Your task to perform on an android device: Open privacy settings Image 0: 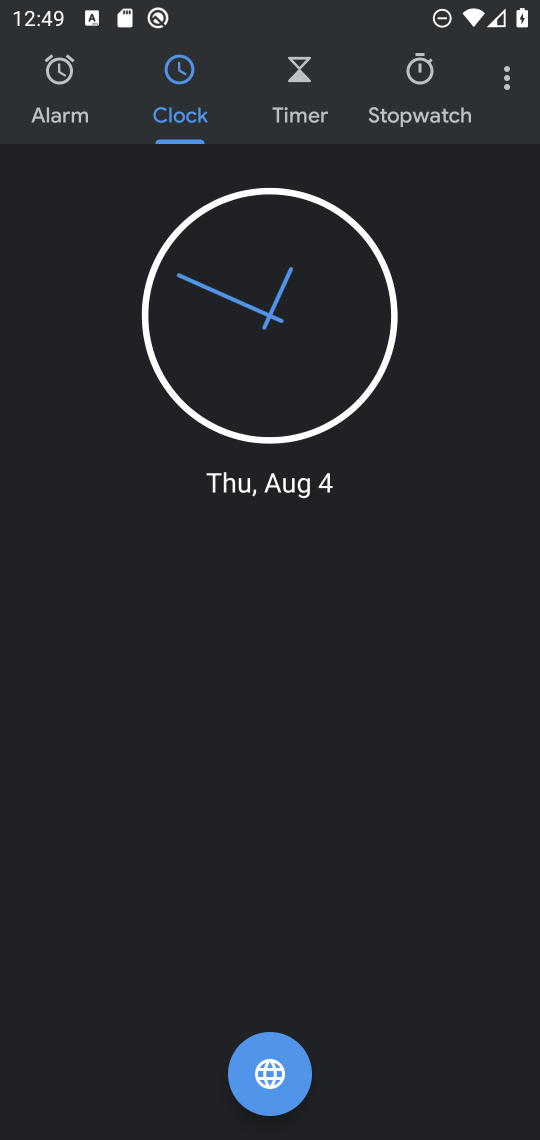
Step 0: press home button
Your task to perform on an android device: Open privacy settings Image 1: 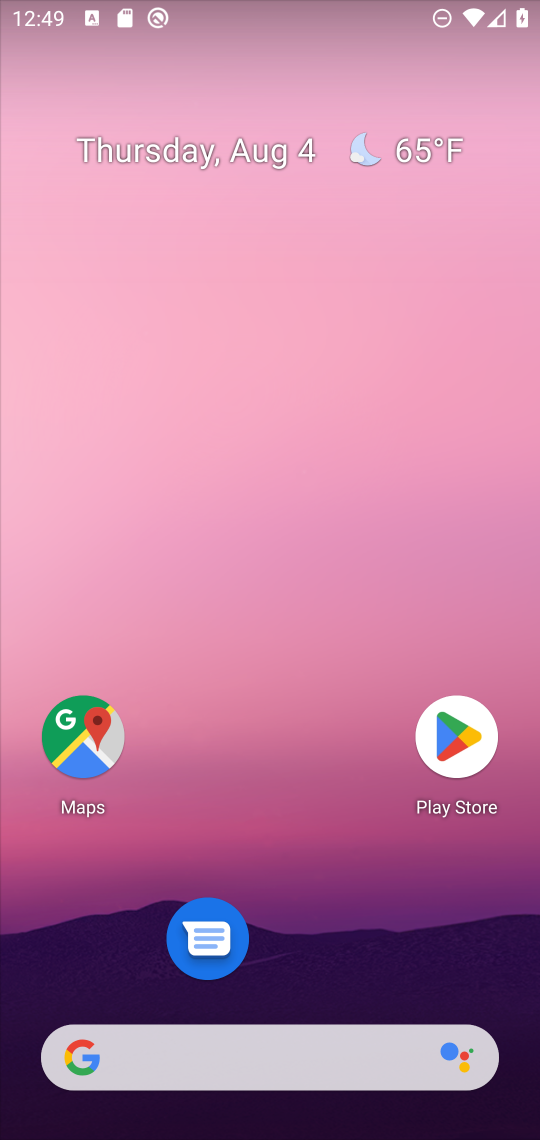
Step 1: drag from (359, 671) to (507, 935)
Your task to perform on an android device: Open privacy settings Image 2: 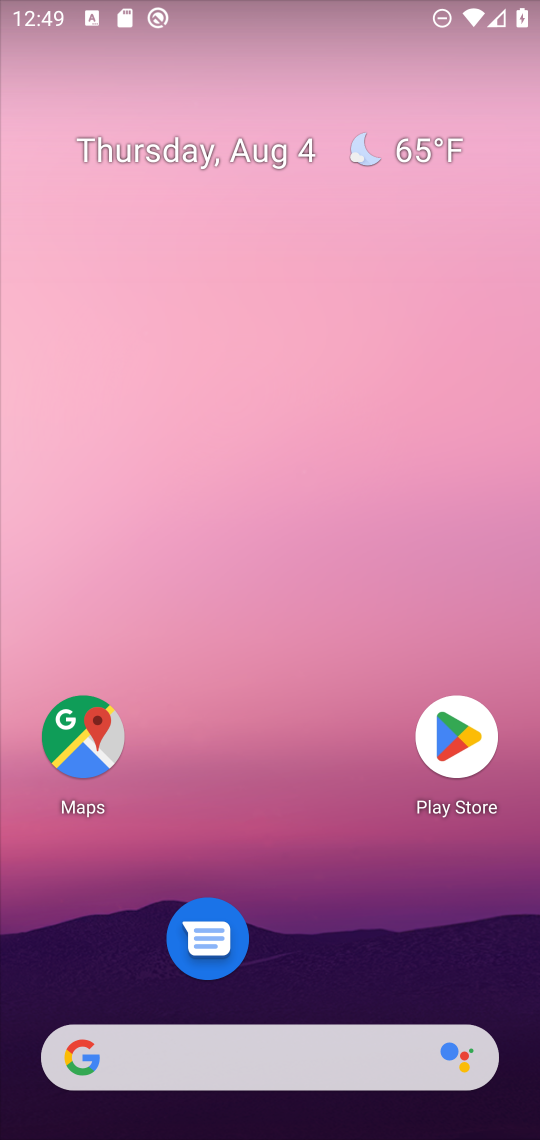
Step 2: drag from (347, 112) to (360, 9)
Your task to perform on an android device: Open privacy settings Image 3: 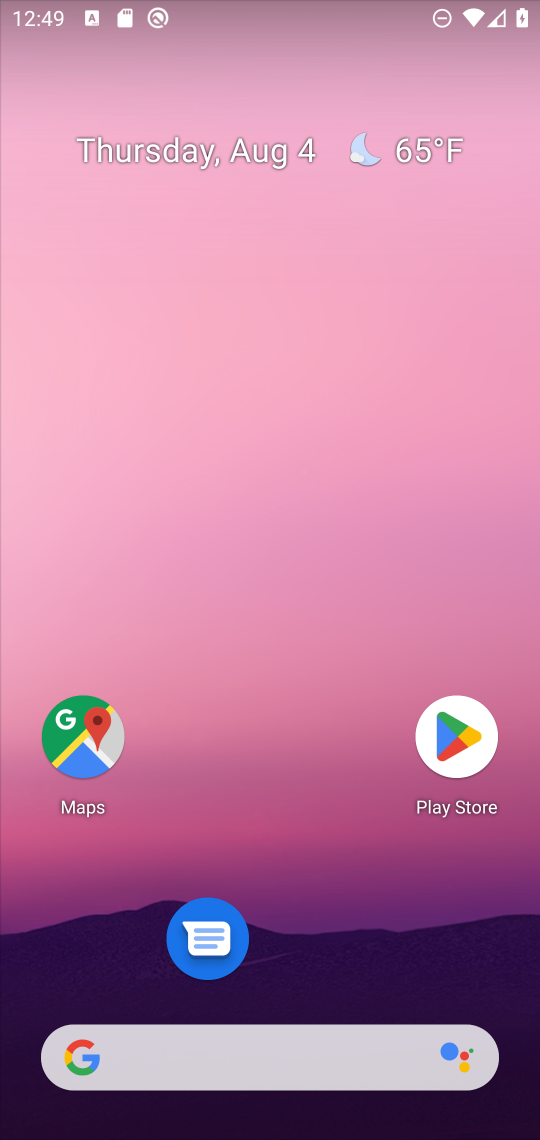
Step 3: drag from (289, 946) to (360, 116)
Your task to perform on an android device: Open privacy settings Image 4: 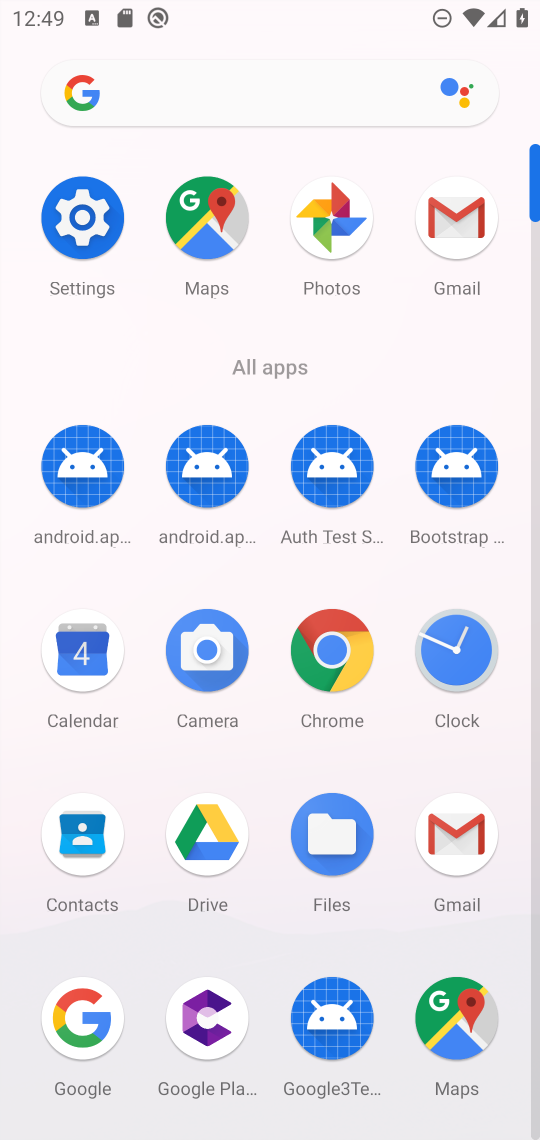
Step 4: click (103, 219)
Your task to perform on an android device: Open privacy settings Image 5: 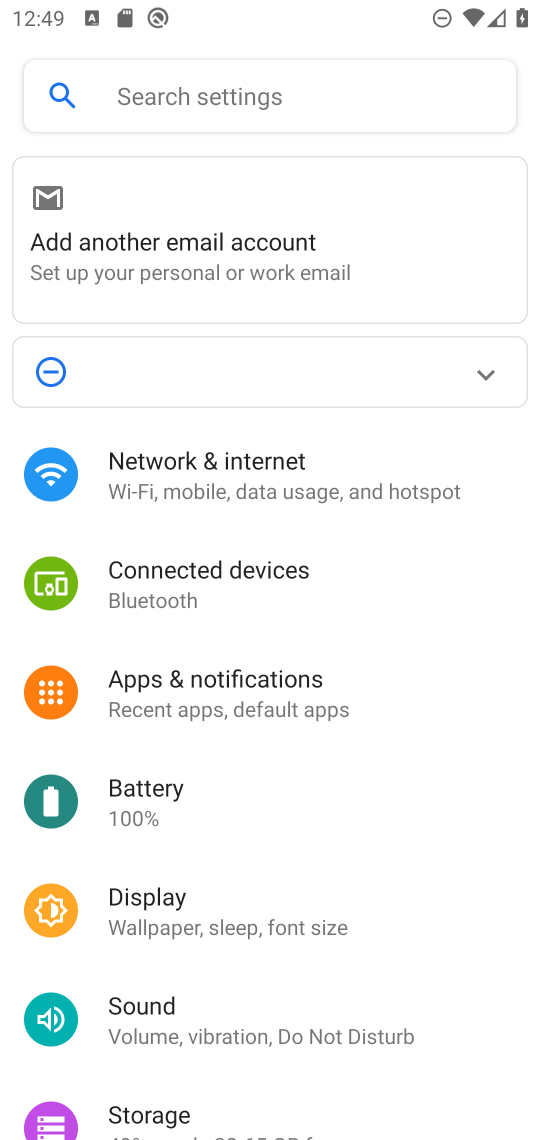
Step 5: drag from (336, 1033) to (343, 179)
Your task to perform on an android device: Open privacy settings Image 6: 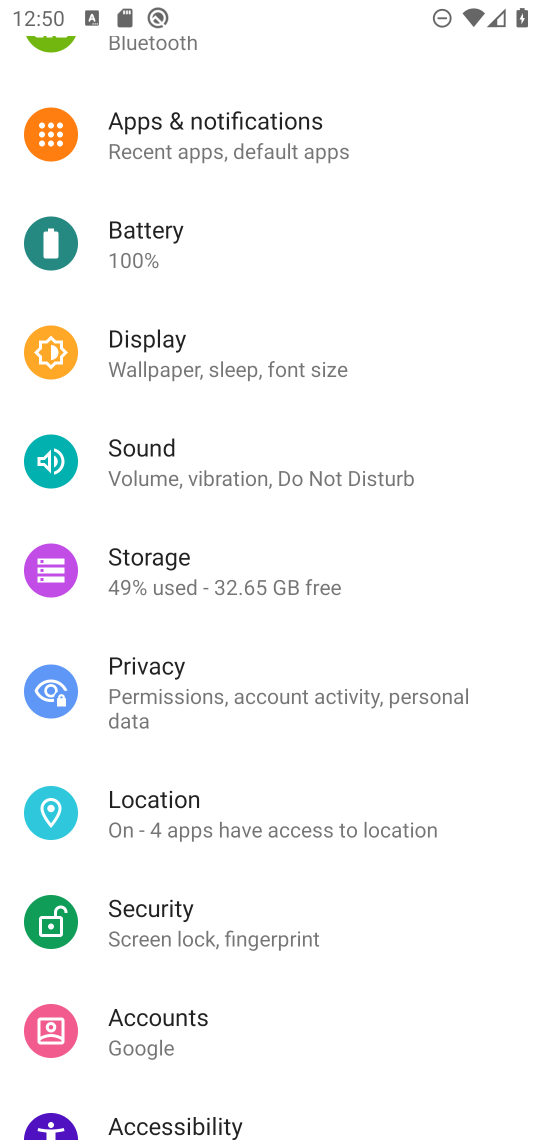
Step 6: click (223, 694)
Your task to perform on an android device: Open privacy settings Image 7: 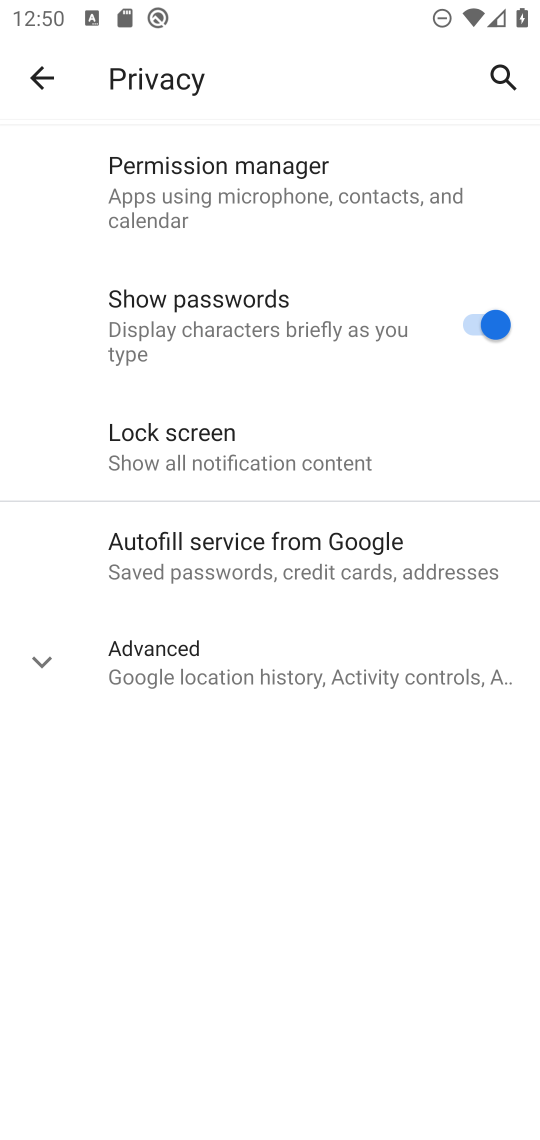
Step 7: task complete